Your task to perform on an android device: toggle priority inbox in the gmail app Image 0: 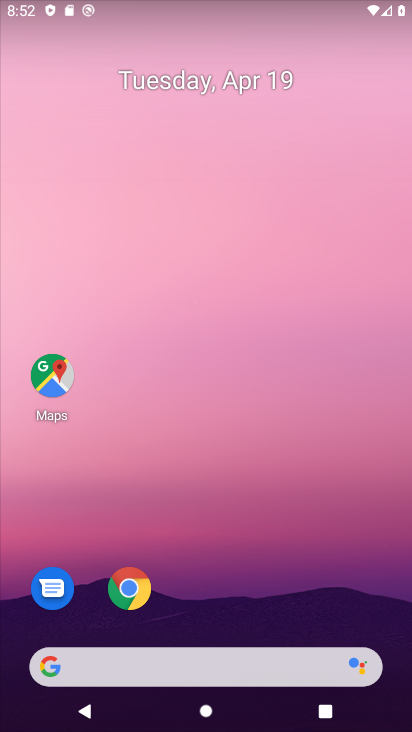
Step 0: drag from (248, 574) to (279, 84)
Your task to perform on an android device: toggle priority inbox in the gmail app Image 1: 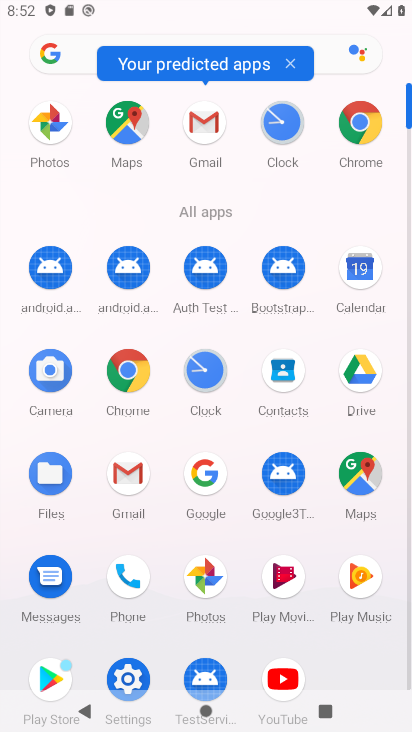
Step 1: click (207, 121)
Your task to perform on an android device: toggle priority inbox in the gmail app Image 2: 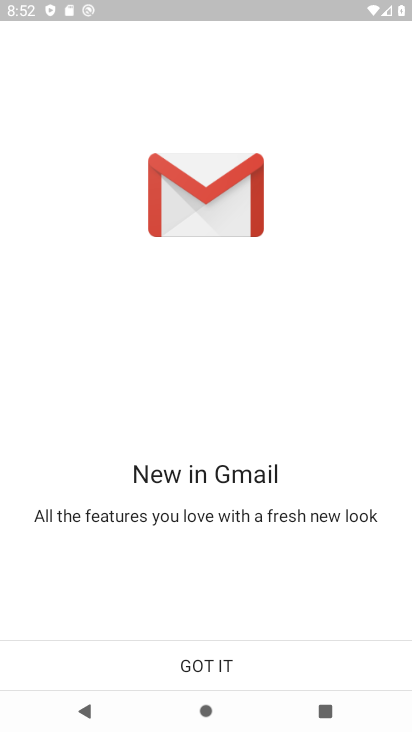
Step 2: click (206, 662)
Your task to perform on an android device: toggle priority inbox in the gmail app Image 3: 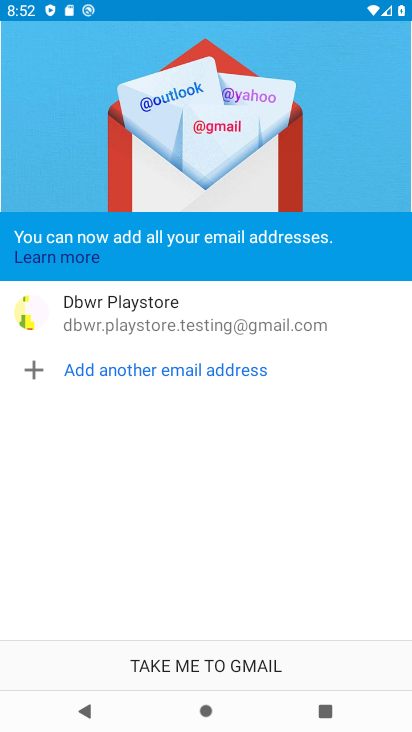
Step 3: click (206, 662)
Your task to perform on an android device: toggle priority inbox in the gmail app Image 4: 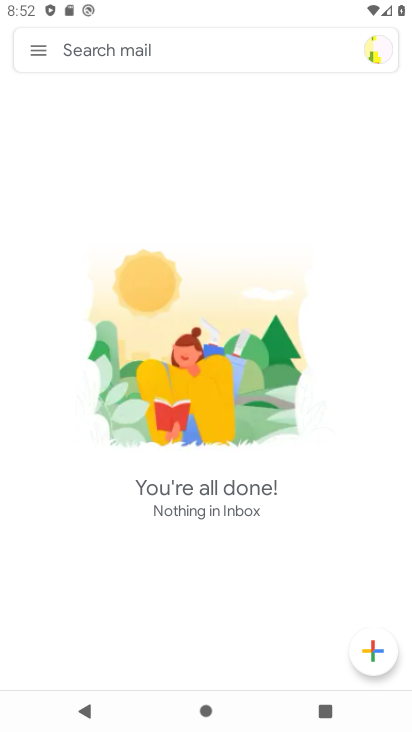
Step 4: click (36, 47)
Your task to perform on an android device: toggle priority inbox in the gmail app Image 5: 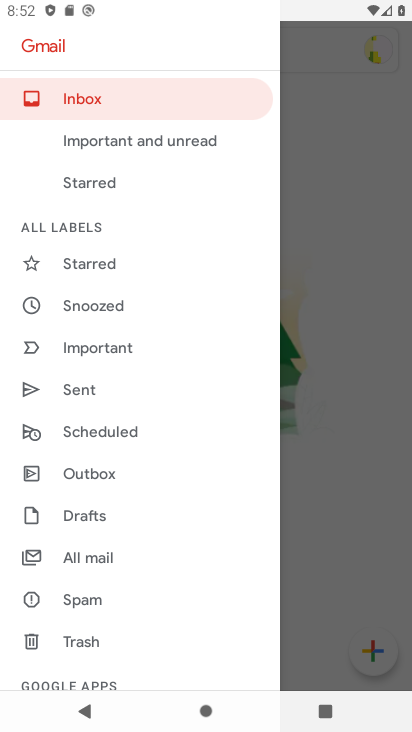
Step 5: drag from (134, 495) to (141, 407)
Your task to perform on an android device: toggle priority inbox in the gmail app Image 6: 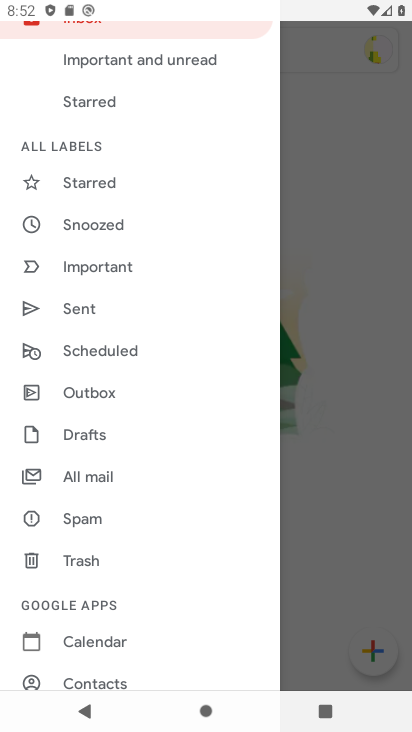
Step 6: drag from (148, 551) to (194, 442)
Your task to perform on an android device: toggle priority inbox in the gmail app Image 7: 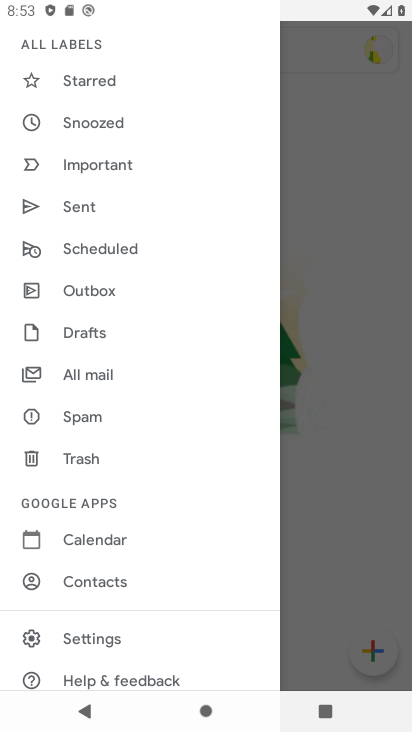
Step 7: click (97, 639)
Your task to perform on an android device: toggle priority inbox in the gmail app Image 8: 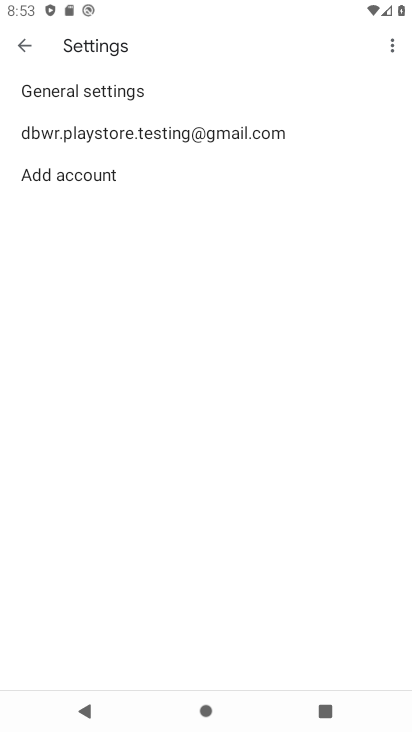
Step 8: click (163, 135)
Your task to perform on an android device: toggle priority inbox in the gmail app Image 9: 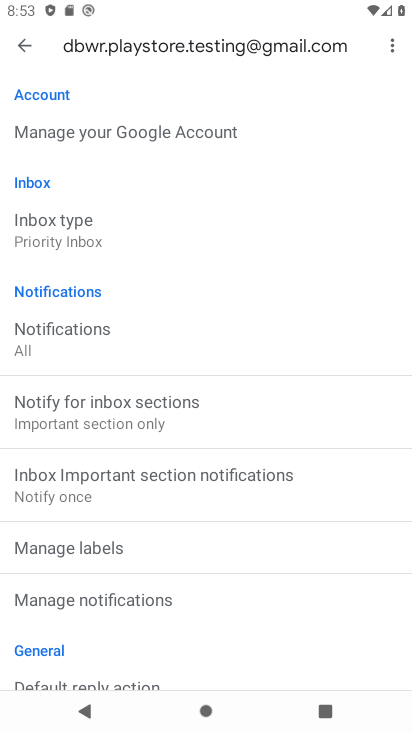
Step 9: click (61, 249)
Your task to perform on an android device: toggle priority inbox in the gmail app Image 10: 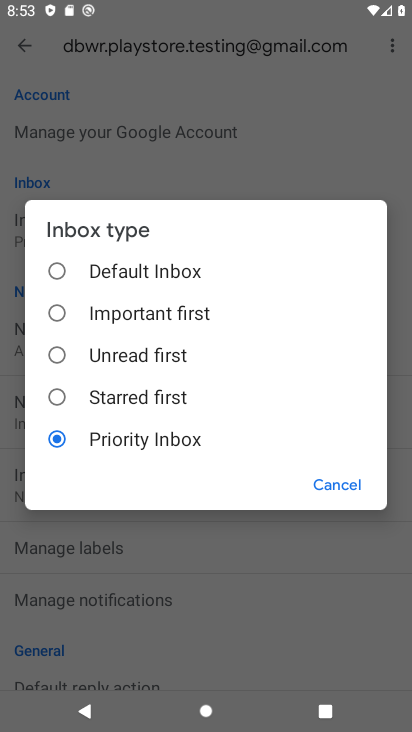
Step 10: click (96, 396)
Your task to perform on an android device: toggle priority inbox in the gmail app Image 11: 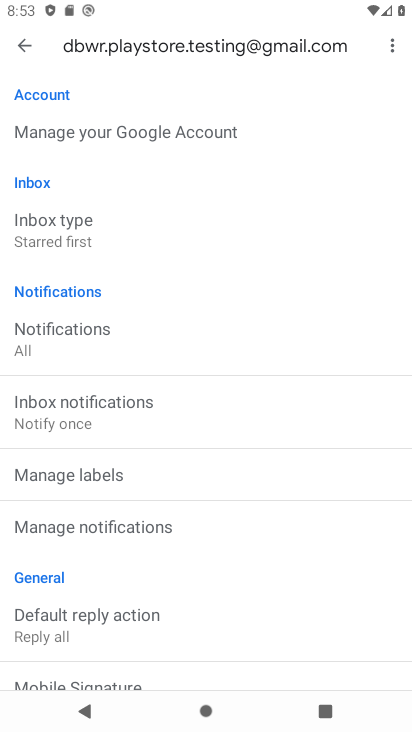
Step 11: task complete